Your task to perform on an android device: What's on my calendar tomorrow? Image 0: 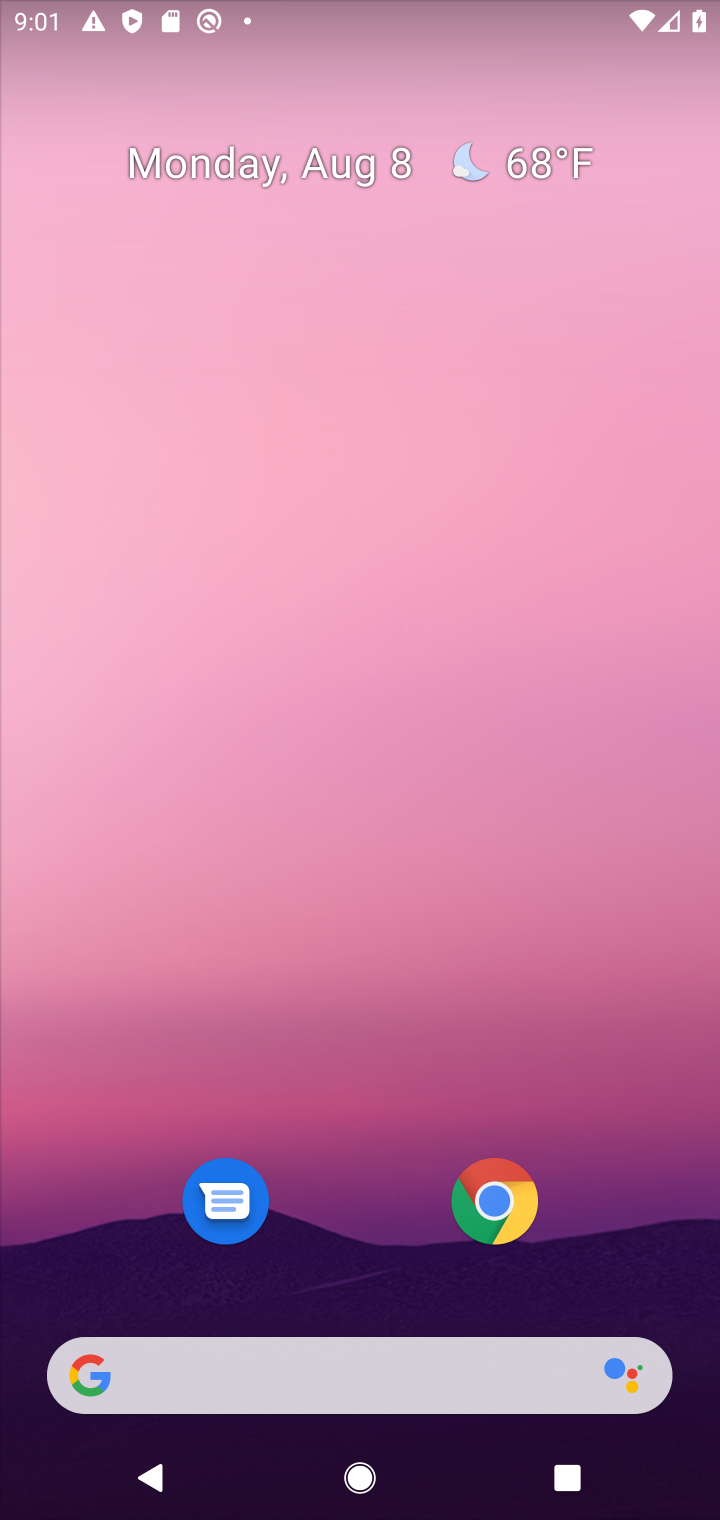
Step 0: press home button
Your task to perform on an android device: What's on my calendar tomorrow? Image 1: 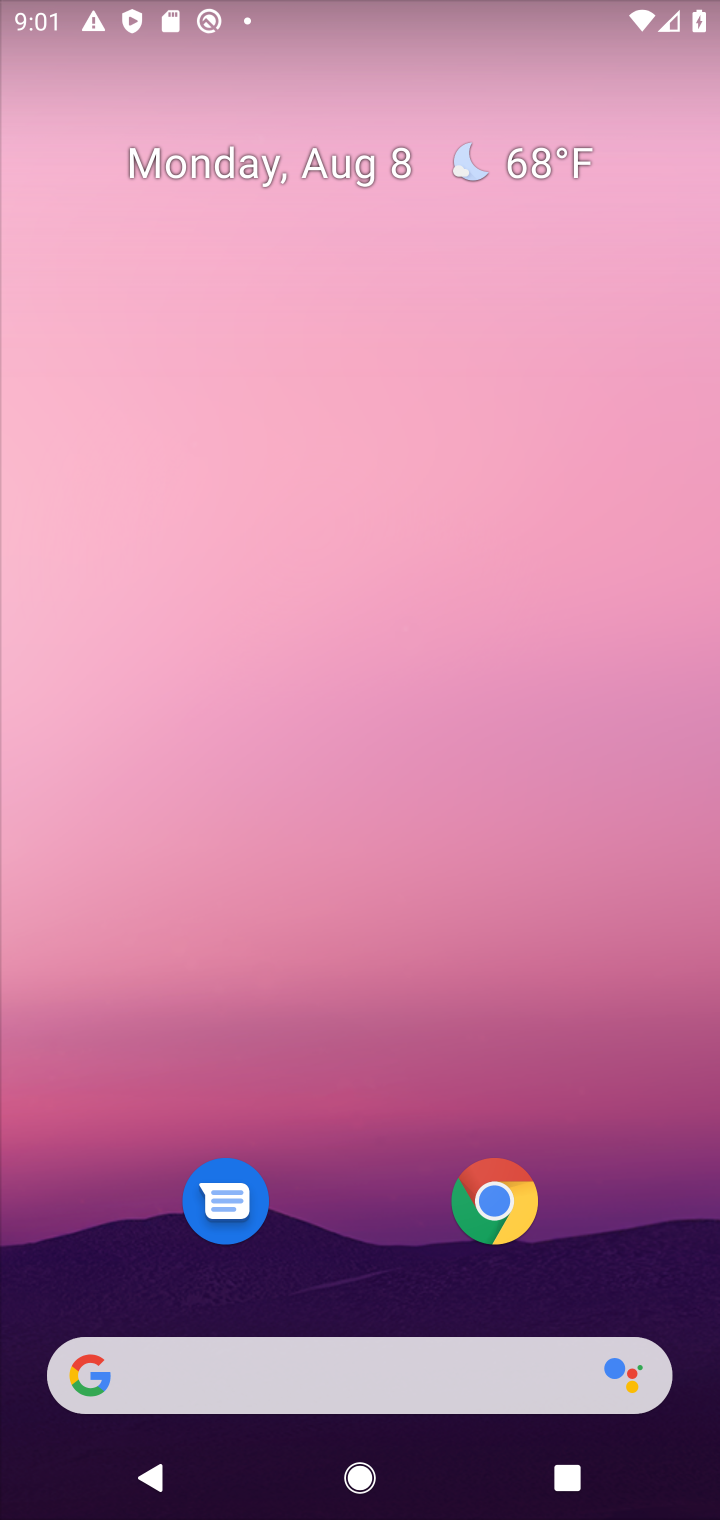
Step 1: drag from (641, 1288) to (655, 294)
Your task to perform on an android device: What's on my calendar tomorrow? Image 2: 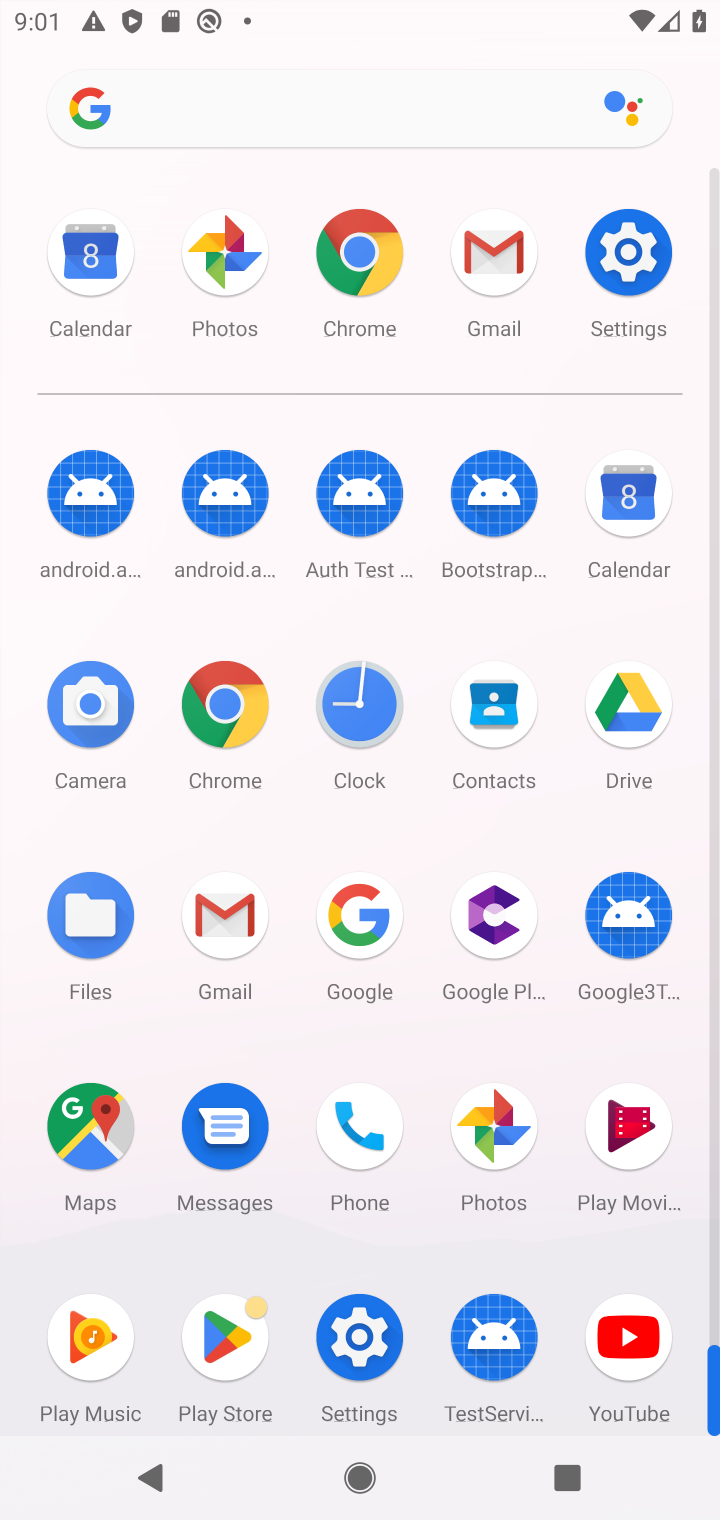
Step 2: click (635, 489)
Your task to perform on an android device: What's on my calendar tomorrow? Image 3: 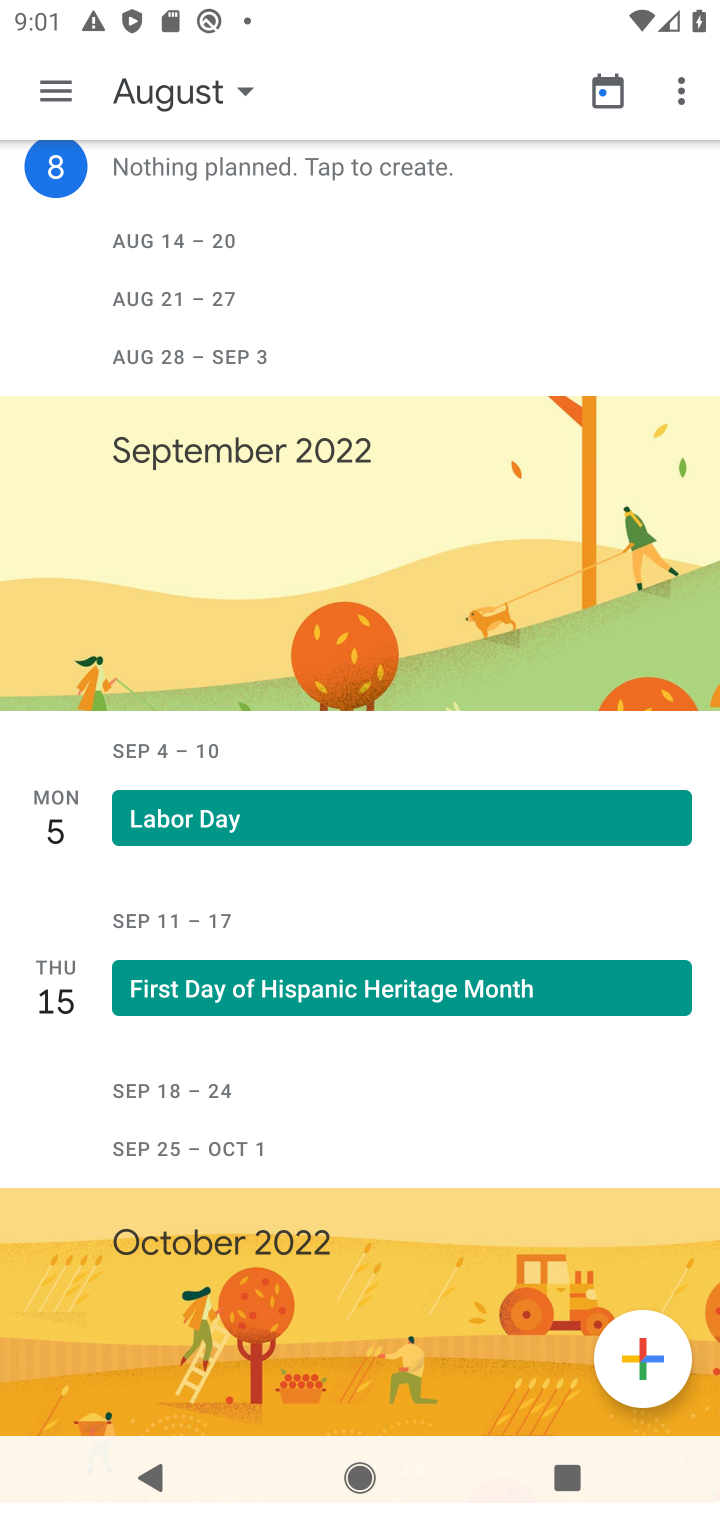
Step 3: click (244, 92)
Your task to perform on an android device: What's on my calendar tomorrow? Image 4: 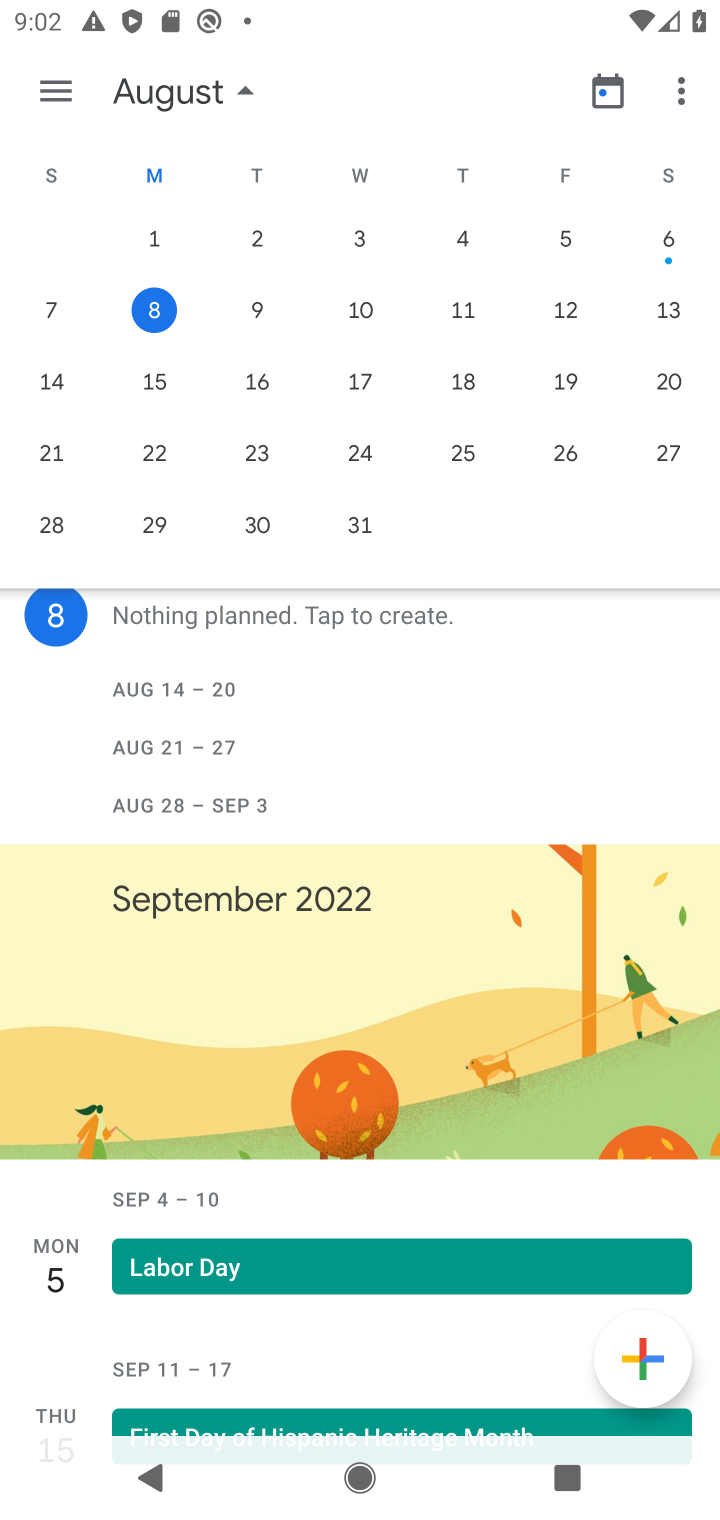
Step 4: click (363, 305)
Your task to perform on an android device: What's on my calendar tomorrow? Image 5: 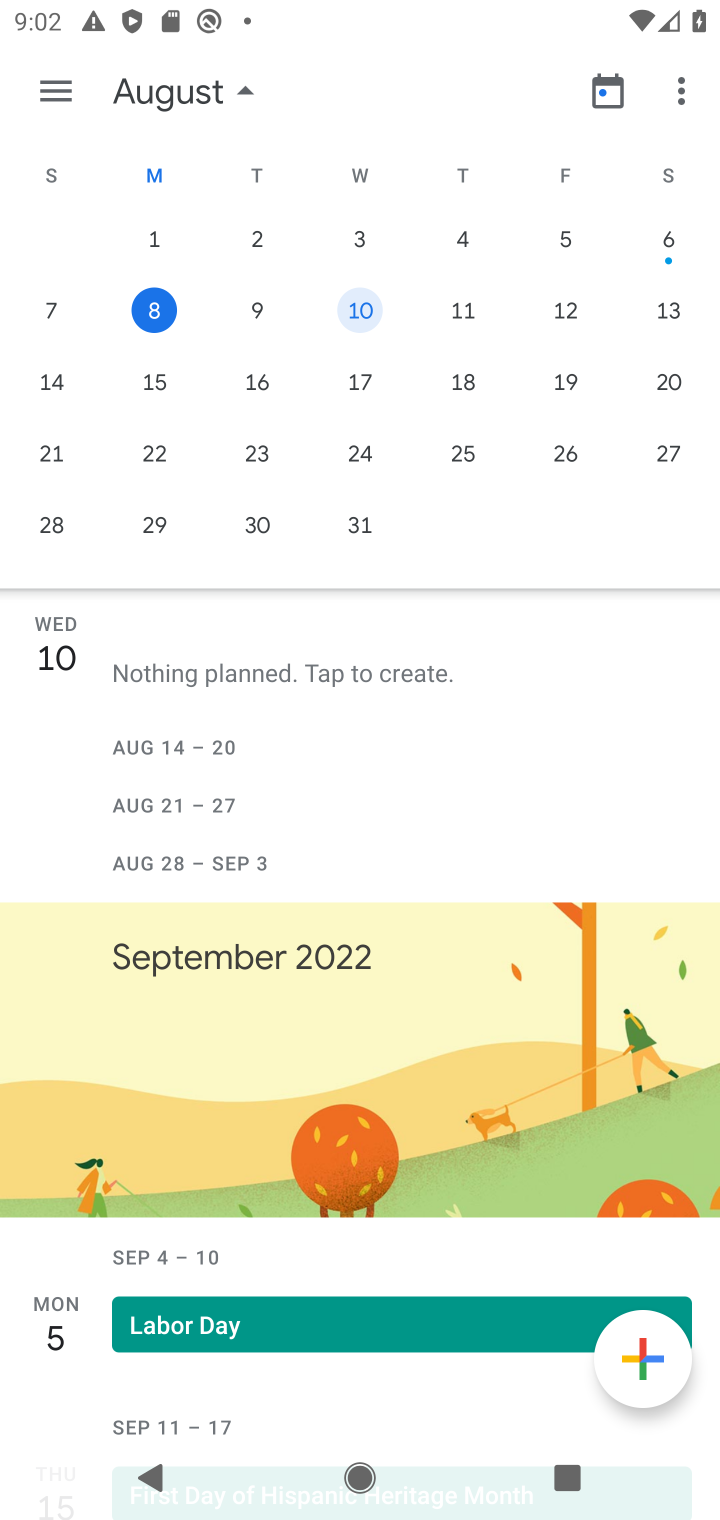
Step 5: task complete